Your task to perform on an android device: Open sound settings Image 0: 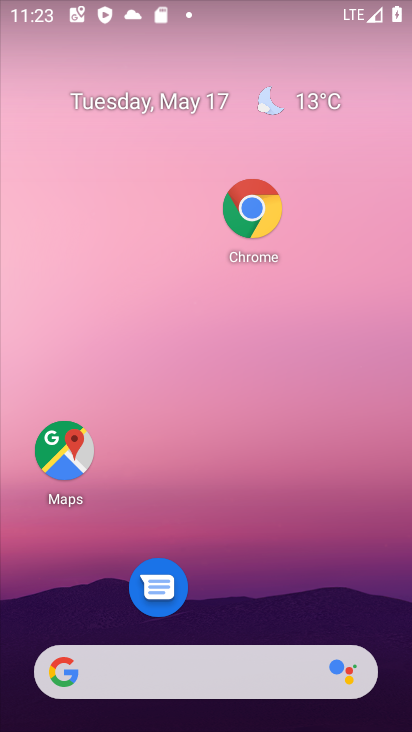
Step 0: drag from (260, 611) to (274, 133)
Your task to perform on an android device: Open sound settings Image 1: 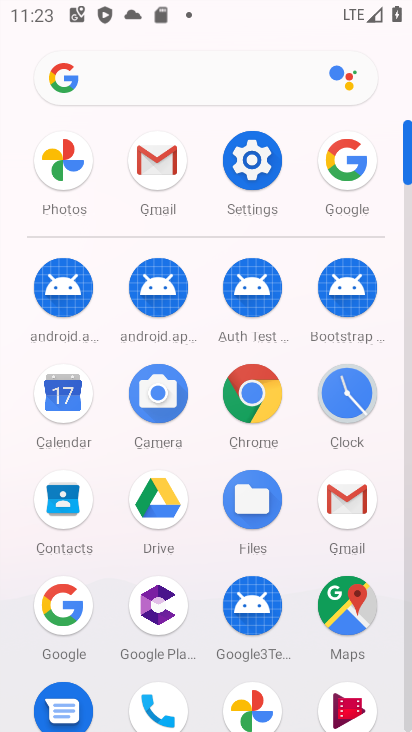
Step 1: click (238, 152)
Your task to perform on an android device: Open sound settings Image 2: 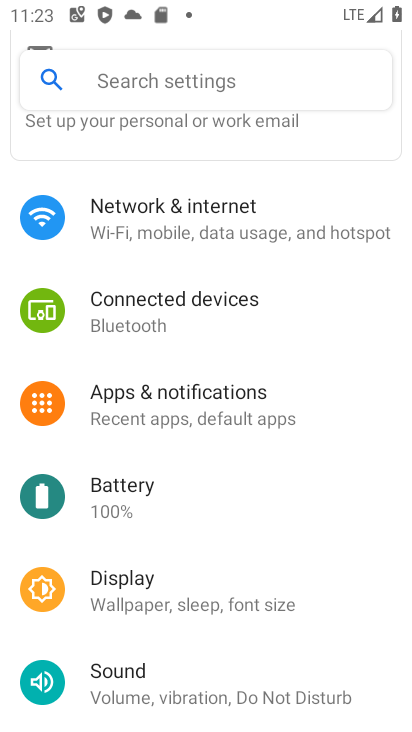
Step 2: click (192, 676)
Your task to perform on an android device: Open sound settings Image 3: 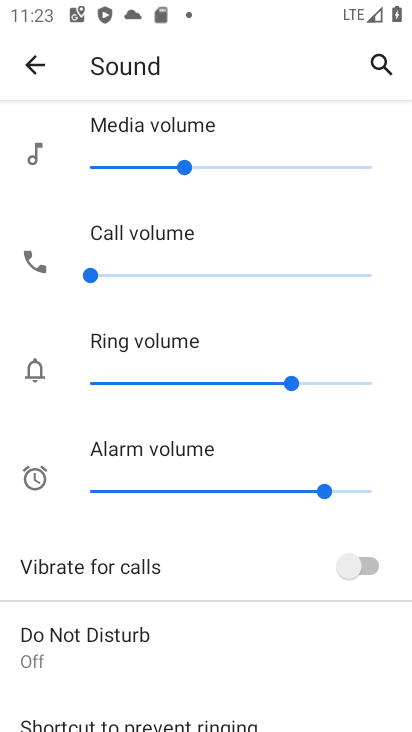
Step 3: task complete